Your task to perform on an android device: When is my next appointment? Image 0: 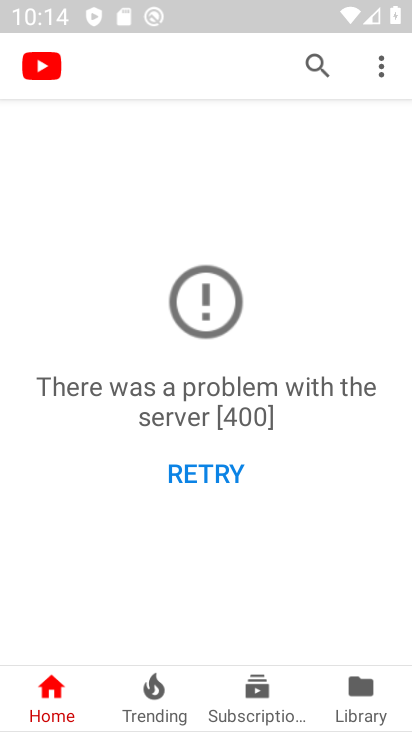
Step 0: press home button
Your task to perform on an android device: When is my next appointment? Image 1: 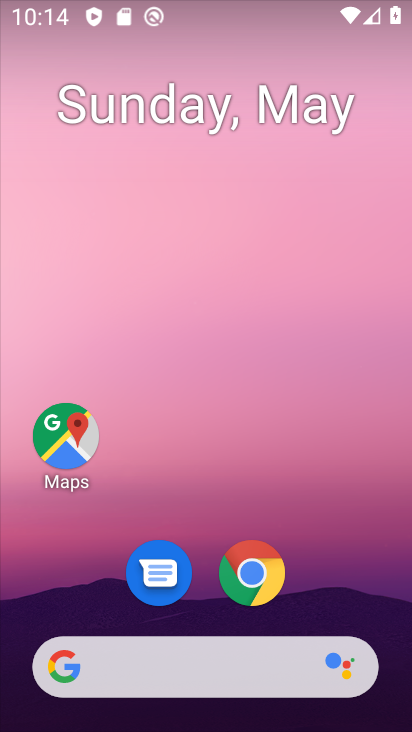
Step 1: drag from (344, 587) to (271, 63)
Your task to perform on an android device: When is my next appointment? Image 2: 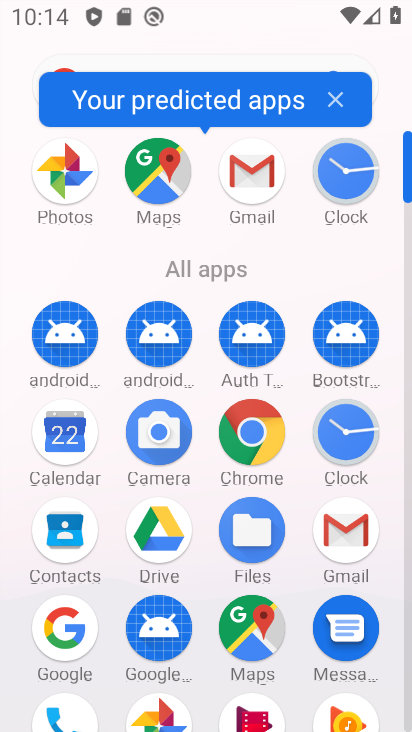
Step 2: click (52, 429)
Your task to perform on an android device: When is my next appointment? Image 3: 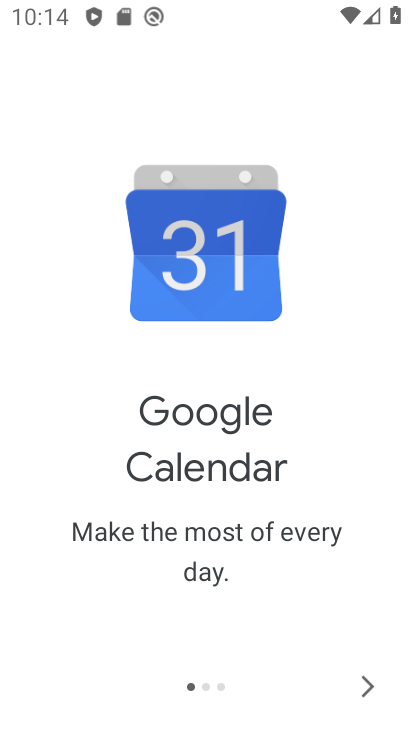
Step 3: click (363, 692)
Your task to perform on an android device: When is my next appointment? Image 4: 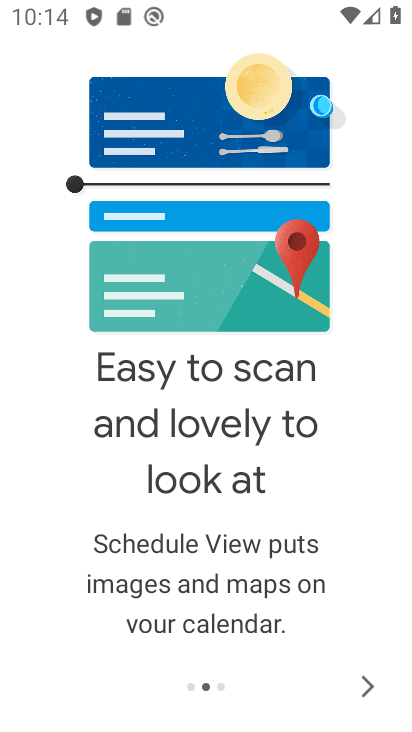
Step 4: click (363, 692)
Your task to perform on an android device: When is my next appointment? Image 5: 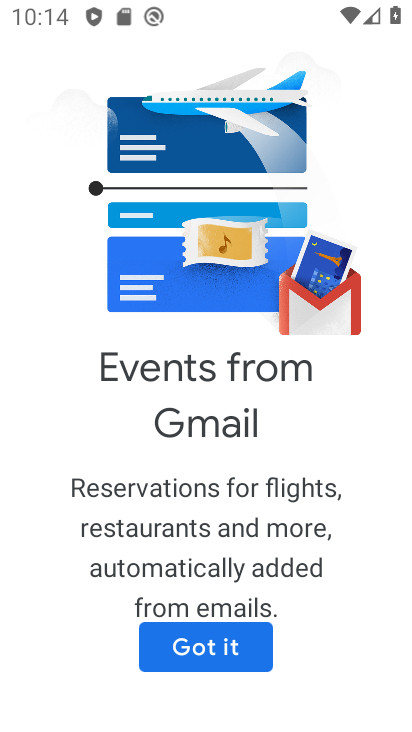
Step 5: click (229, 645)
Your task to perform on an android device: When is my next appointment? Image 6: 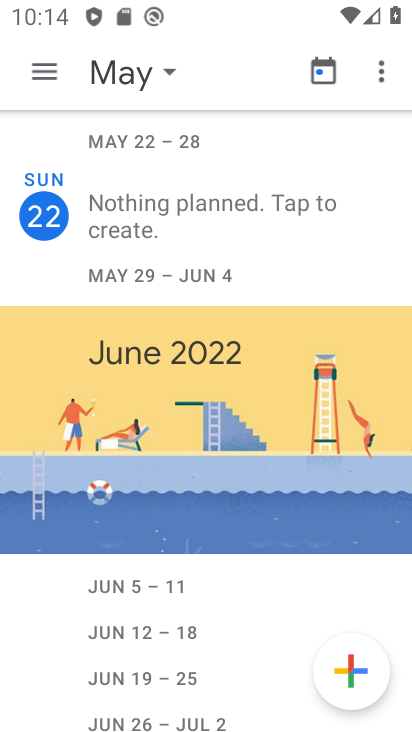
Step 6: click (139, 80)
Your task to perform on an android device: When is my next appointment? Image 7: 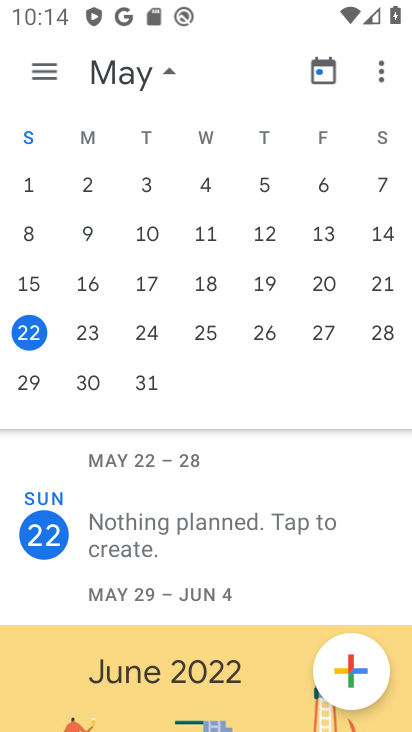
Step 7: click (97, 342)
Your task to perform on an android device: When is my next appointment? Image 8: 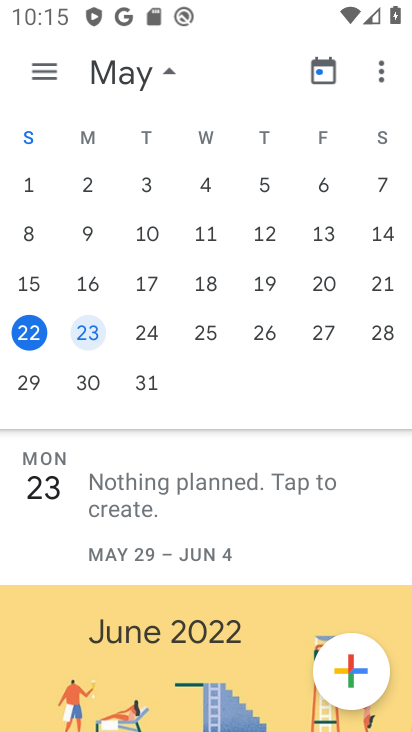
Step 8: click (123, 64)
Your task to perform on an android device: When is my next appointment? Image 9: 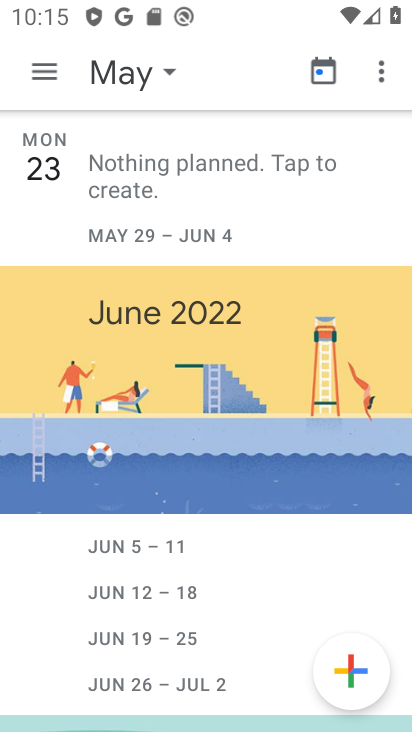
Step 9: task complete